Your task to perform on an android device: toggle priority inbox in the gmail app Image 0: 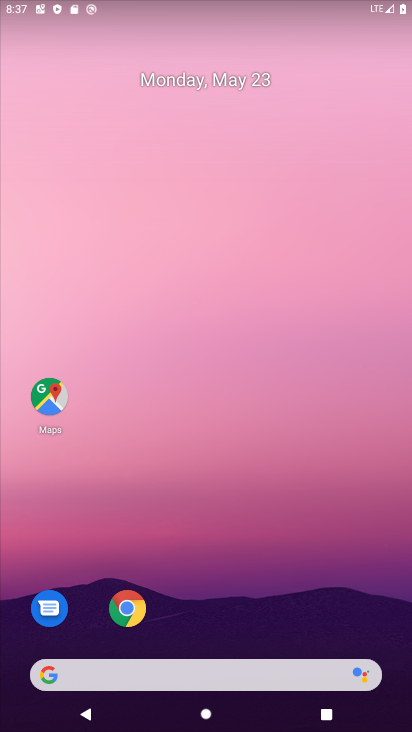
Step 0: drag from (209, 666) to (193, 191)
Your task to perform on an android device: toggle priority inbox in the gmail app Image 1: 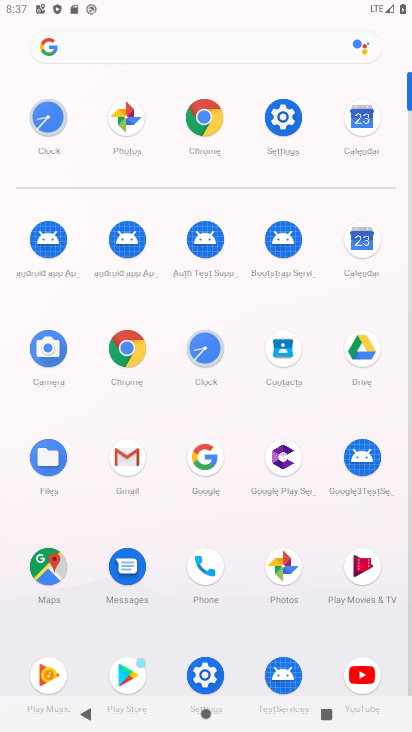
Step 1: click (121, 459)
Your task to perform on an android device: toggle priority inbox in the gmail app Image 2: 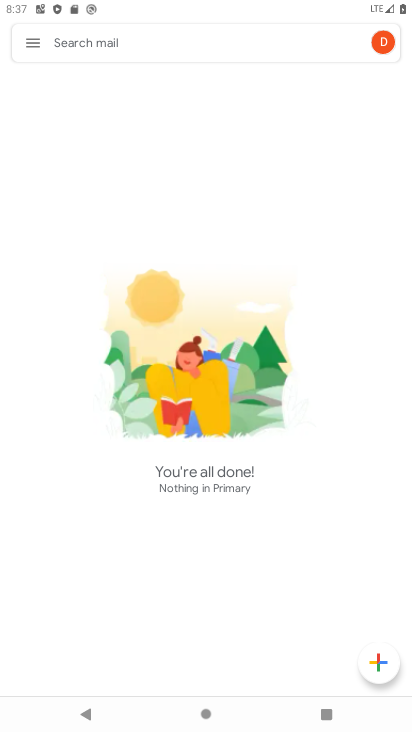
Step 2: click (34, 40)
Your task to perform on an android device: toggle priority inbox in the gmail app Image 3: 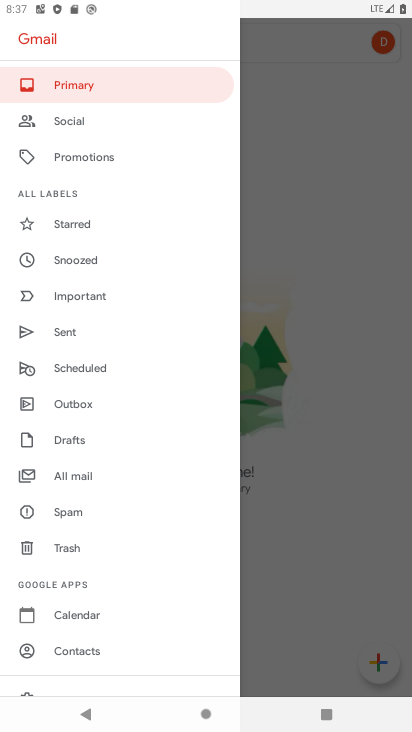
Step 3: drag from (92, 599) to (67, 157)
Your task to perform on an android device: toggle priority inbox in the gmail app Image 4: 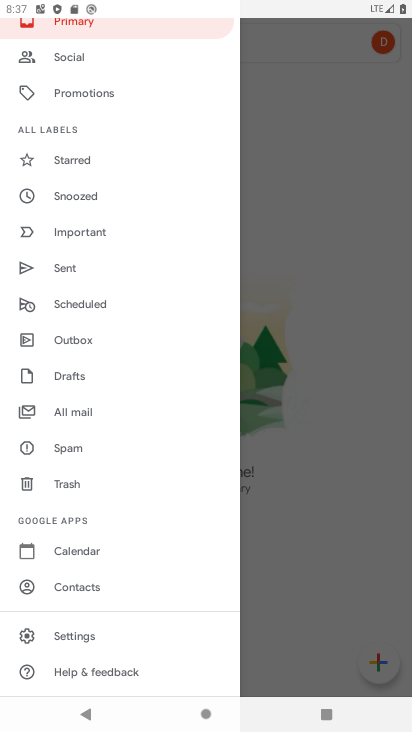
Step 4: click (80, 632)
Your task to perform on an android device: toggle priority inbox in the gmail app Image 5: 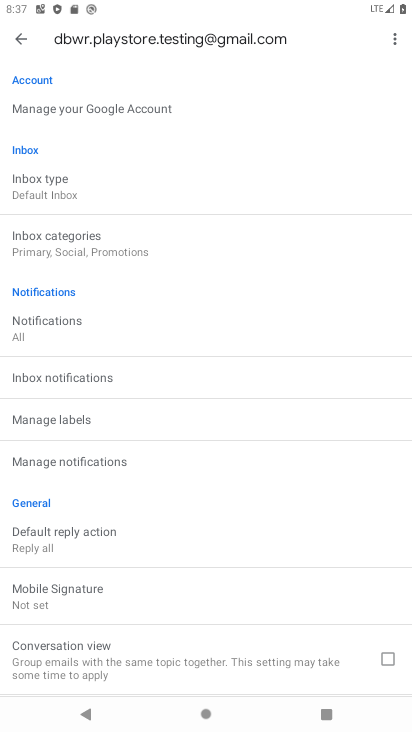
Step 5: click (47, 184)
Your task to perform on an android device: toggle priority inbox in the gmail app Image 6: 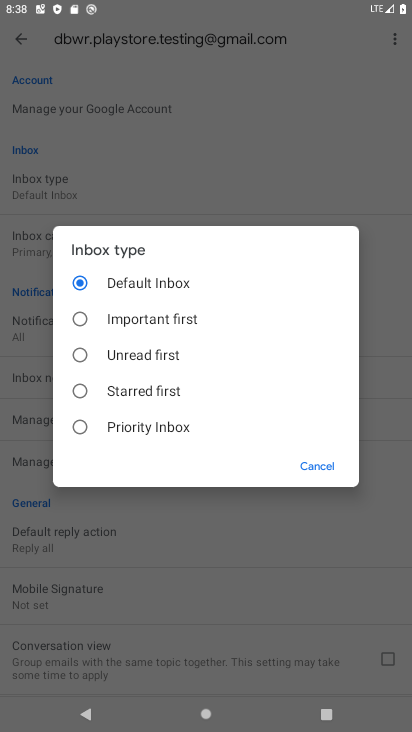
Step 6: click (144, 433)
Your task to perform on an android device: toggle priority inbox in the gmail app Image 7: 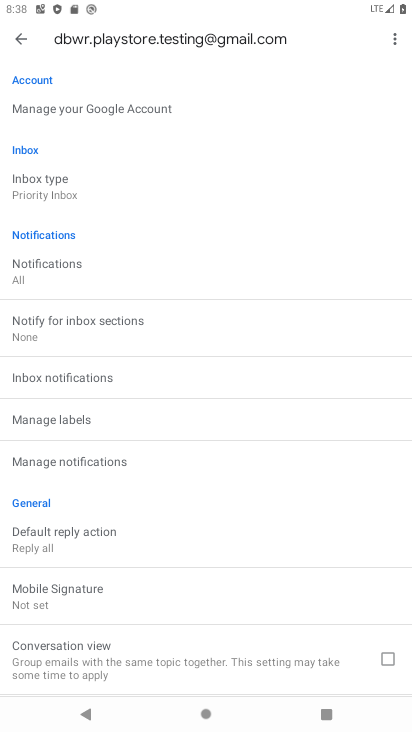
Step 7: task complete